Your task to perform on an android device: Open accessibility settings Image 0: 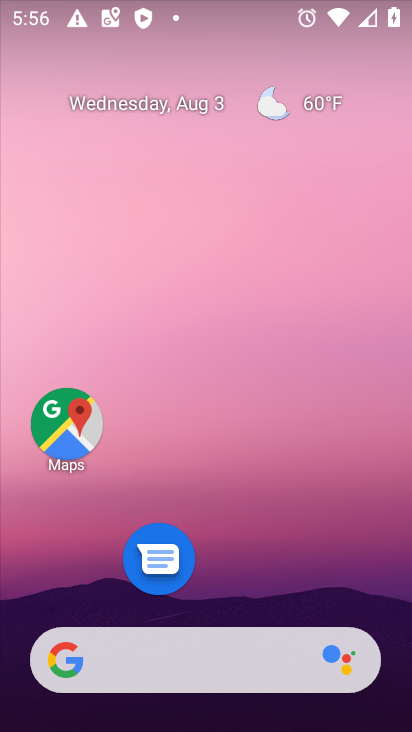
Step 0: drag from (232, 639) to (311, 59)
Your task to perform on an android device: Open accessibility settings Image 1: 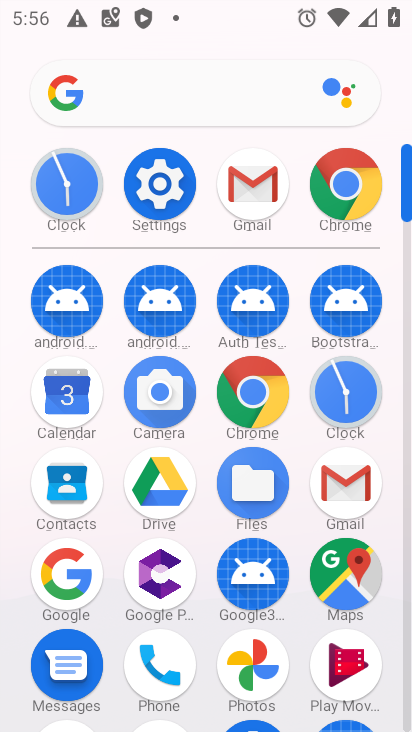
Step 1: click (159, 196)
Your task to perform on an android device: Open accessibility settings Image 2: 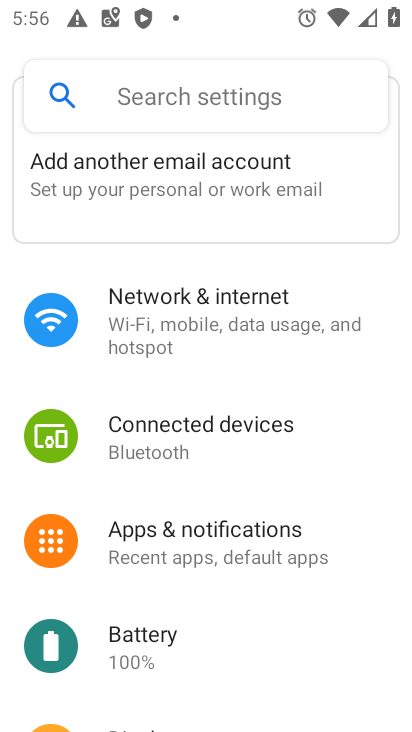
Step 2: drag from (170, 658) to (192, 209)
Your task to perform on an android device: Open accessibility settings Image 3: 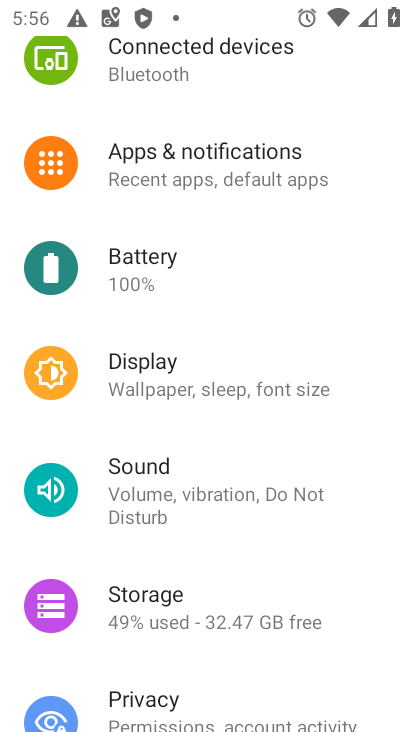
Step 3: drag from (209, 660) to (245, 316)
Your task to perform on an android device: Open accessibility settings Image 4: 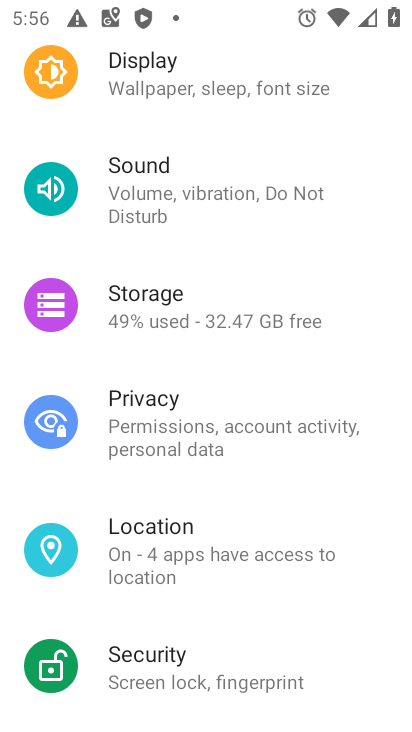
Step 4: drag from (162, 673) to (218, 214)
Your task to perform on an android device: Open accessibility settings Image 5: 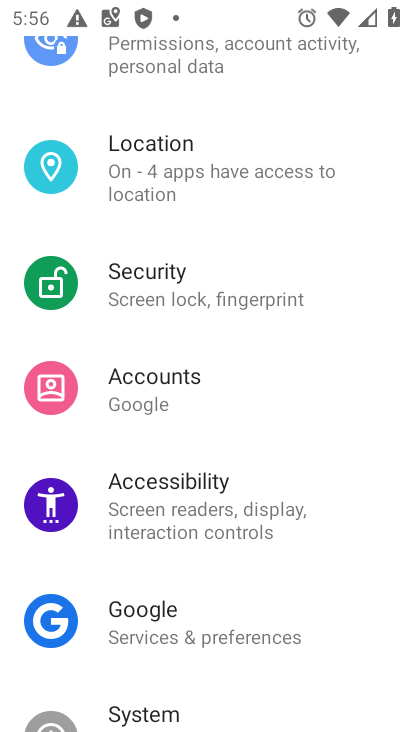
Step 5: click (178, 511)
Your task to perform on an android device: Open accessibility settings Image 6: 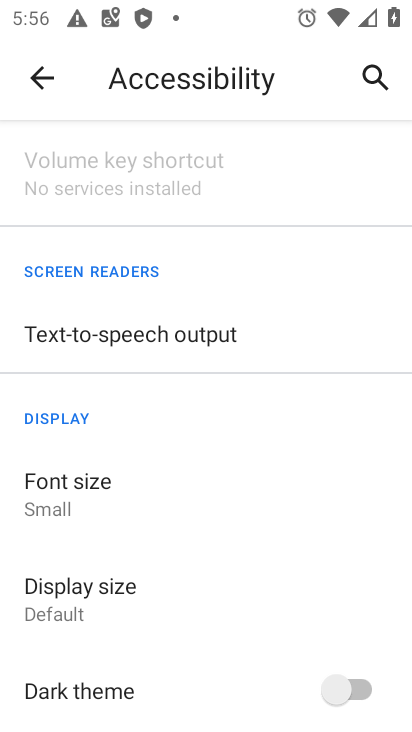
Step 6: task complete